Your task to perform on an android device: Open Google Chrome and open the bookmarks view Image 0: 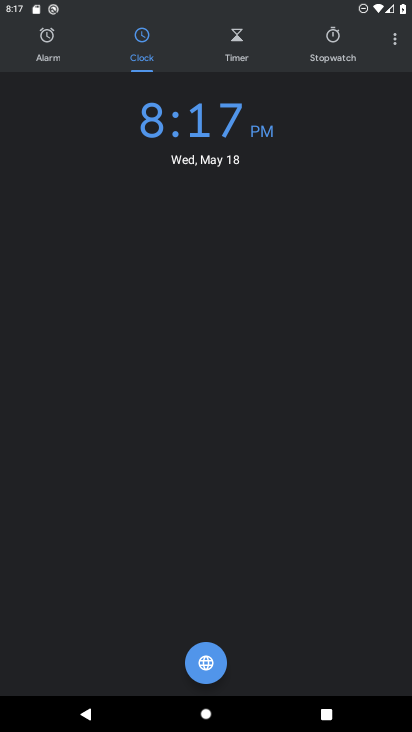
Step 0: press home button
Your task to perform on an android device: Open Google Chrome and open the bookmarks view Image 1: 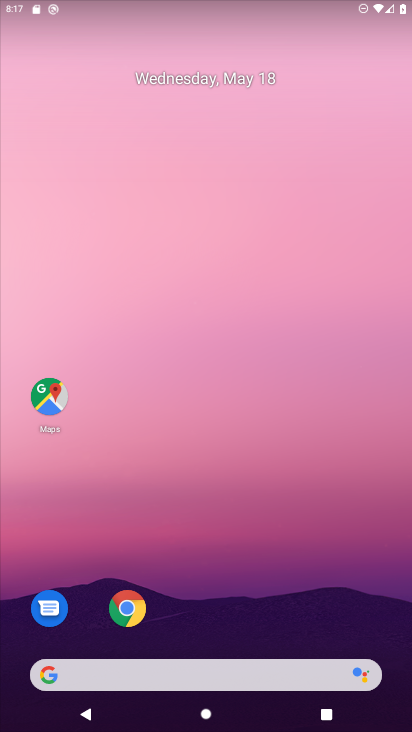
Step 1: click (141, 606)
Your task to perform on an android device: Open Google Chrome and open the bookmarks view Image 2: 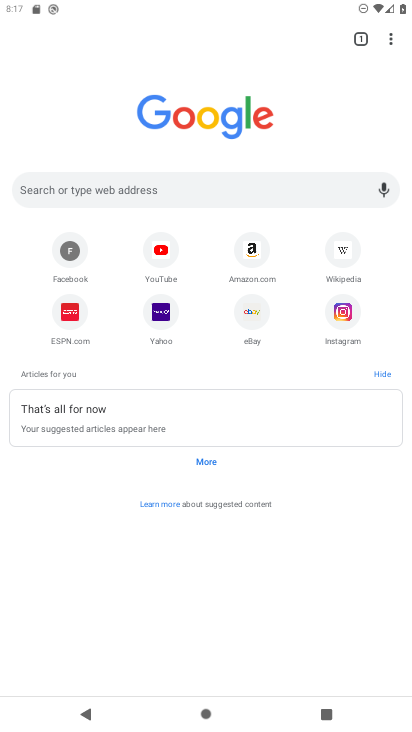
Step 2: click (401, 36)
Your task to perform on an android device: Open Google Chrome and open the bookmarks view Image 3: 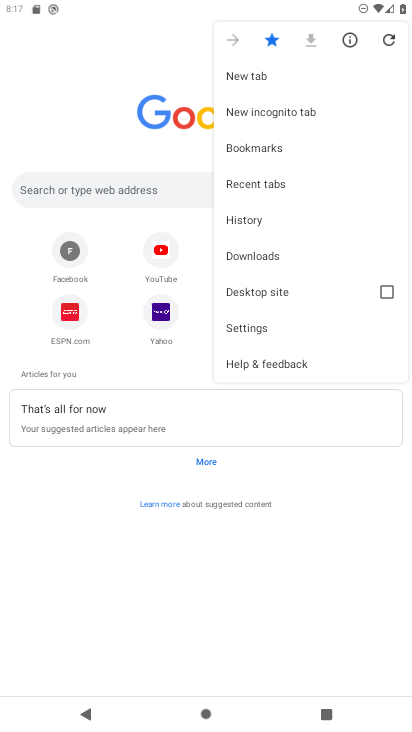
Step 3: click (265, 154)
Your task to perform on an android device: Open Google Chrome and open the bookmarks view Image 4: 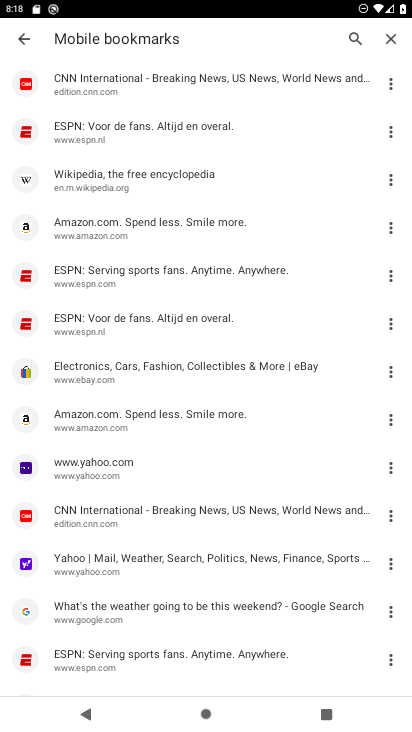
Step 4: task complete